Your task to perform on an android device: change the clock style Image 0: 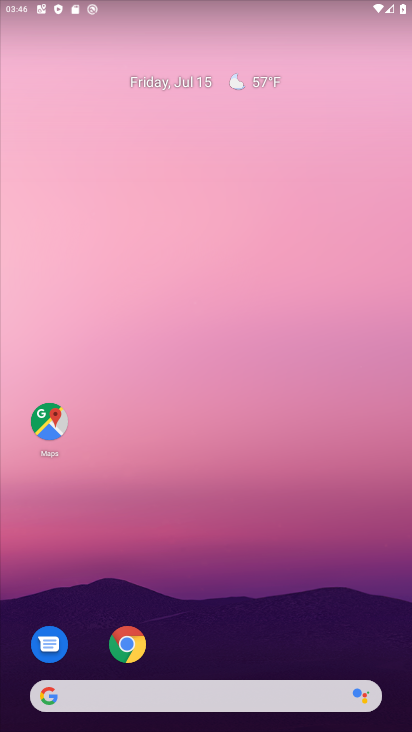
Step 0: drag from (264, 652) to (206, 12)
Your task to perform on an android device: change the clock style Image 1: 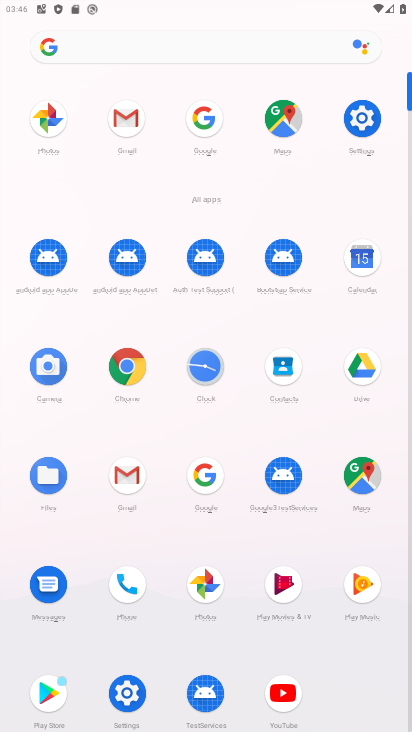
Step 1: click (210, 366)
Your task to perform on an android device: change the clock style Image 2: 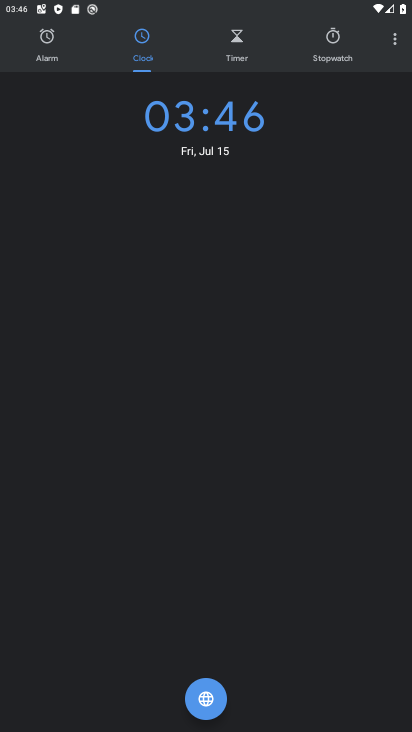
Step 2: click (392, 43)
Your task to perform on an android device: change the clock style Image 3: 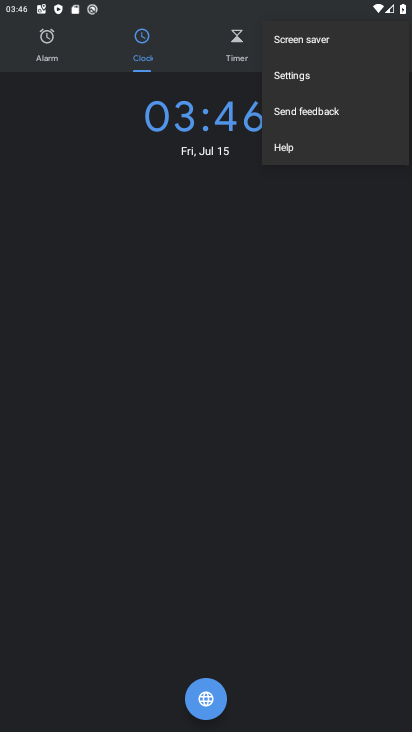
Step 3: click (335, 71)
Your task to perform on an android device: change the clock style Image 4: 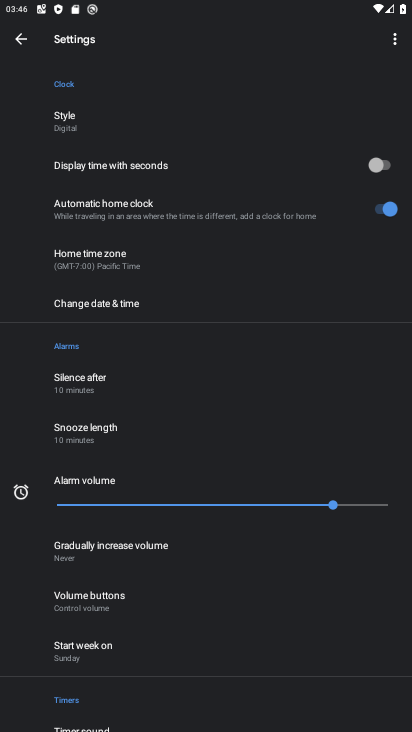
Step 4: click (182, 122)
Your task to perform on an android device: change the clock style Image 5: 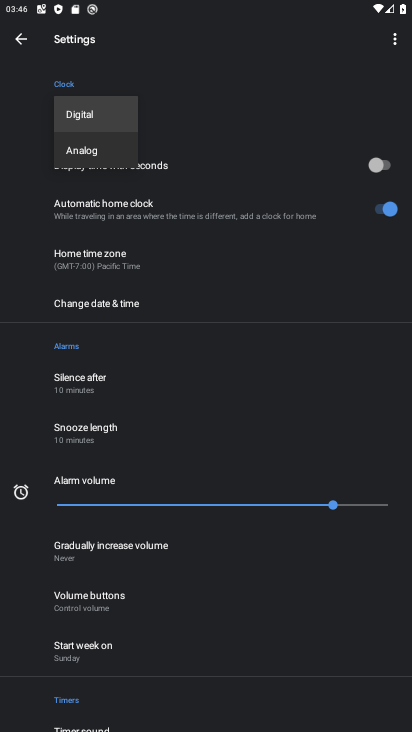
Step 5: click (119, 148)
Your task to perform on an android device: change the clock style Image 6: 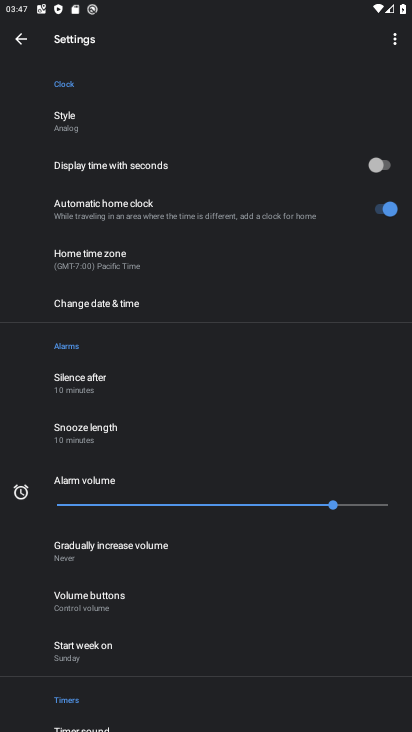
Step 6: task complete